Your task to perform on an android device: set an alarm Image 0: 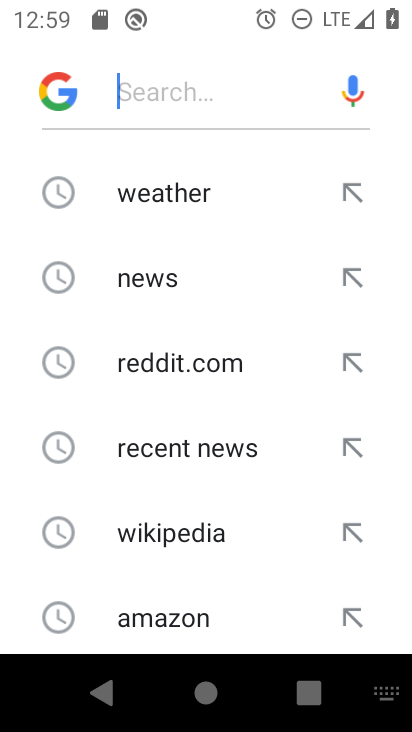
Step 0: press home button
Your task to perform on an android device: set an alarm Image 1: 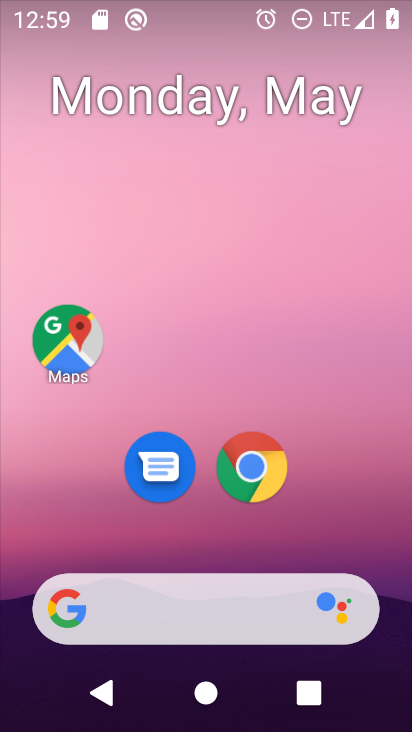
Step 1: drag from (378, 574) to (368, 9)
Your task to perform on an android device: set an alarm Image 2: 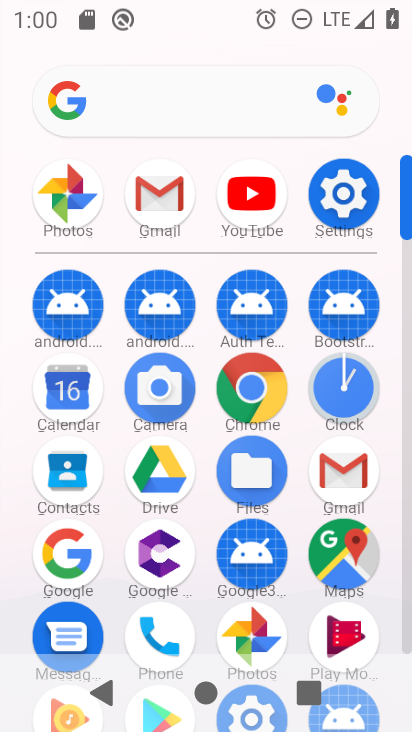
Step 2: click (342, 388)
Your task to perform on an android device: set an alarm Image 3: 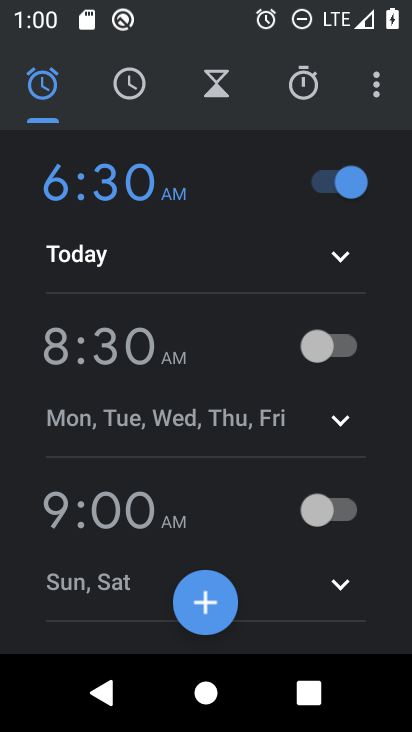
Step 3: click (201, 605)
Your task to perform on an android device: set an alarm Image 4: 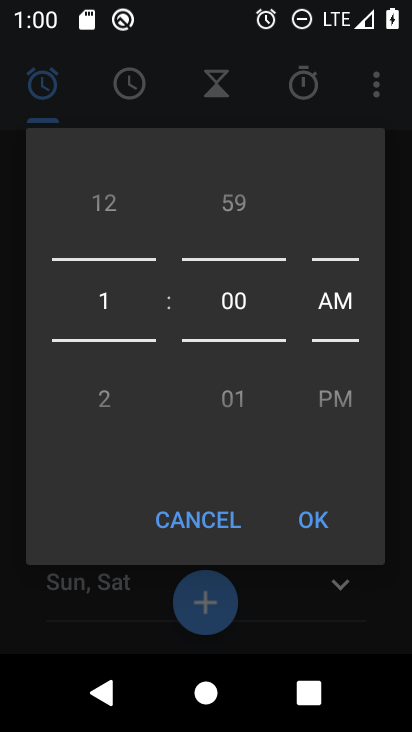
Step 4: drag from (112, 358) to (99, 122)
Your task to perform on an android device: set an alarm Image 5: 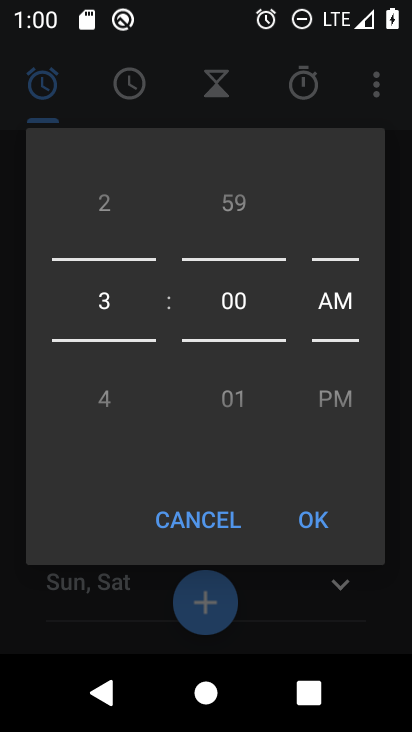
Step 5: drag from (107, 321) to (107, 162)
Your task to perform on an android device: set an alarm Image 6: 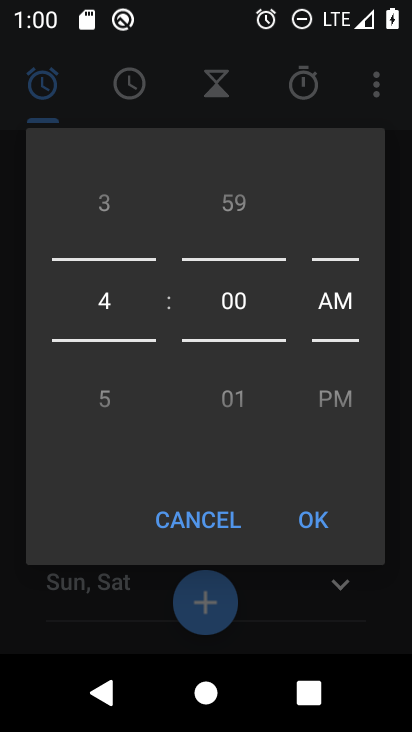
Step 6: click (313, 510)
Your task to perform on an android device: set an alarm Image 7: 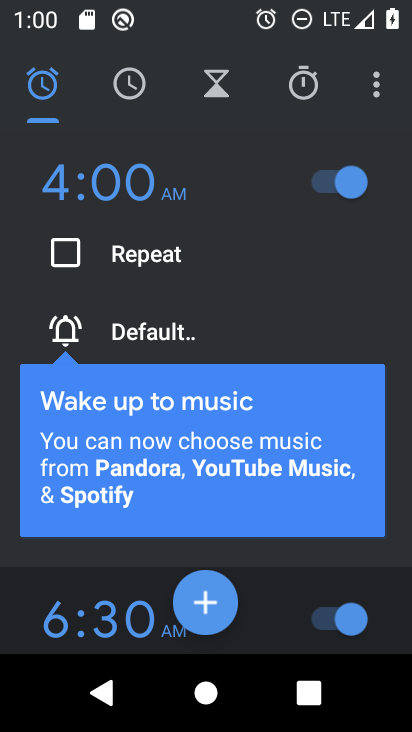
Step 7: task complete